Your task to perform on an android device: Search for Italian restaurants on Maps Image 0: 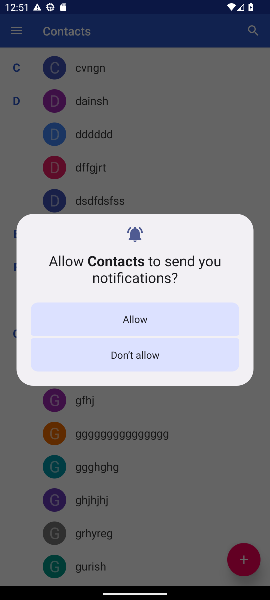
Step 0: press home button
Your task to perform on an android device: Search for Italian restaurants on Maps Image 1: 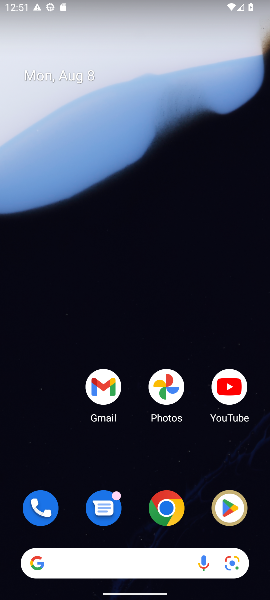
Step 1: drag from (137, 511) to (132, 5)
Your task to perform on an android device: Search for Italian restaurants on Maps Image 2: 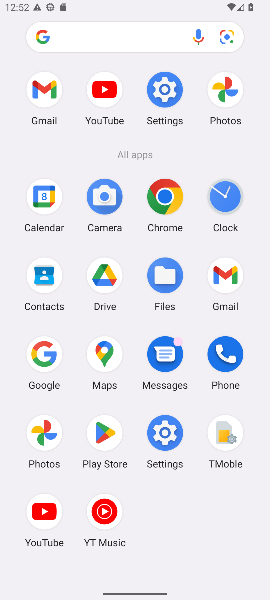
Step 2: click (107, 349)
Your task to perform on an android device: Search for Italian restaurants on Maps Image 3: 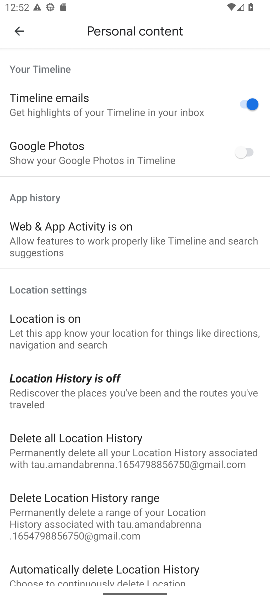
Step 3: click (15, 31)
Your task to perform on an android device: Search for Italian restaurants on Maps Image 4: 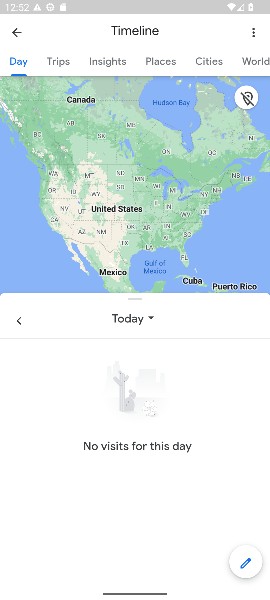
Step 4: click (16, 28)
Your task to perform on an android device: Search for Italian restaurants on Maps Image 5: 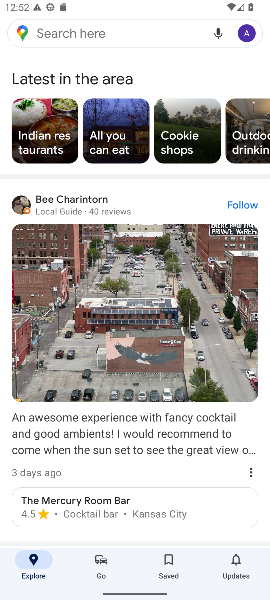
Step 5: click (106, 33)
Your task to perform on an android device: Search for Italian restaurants on Maps Image 6: 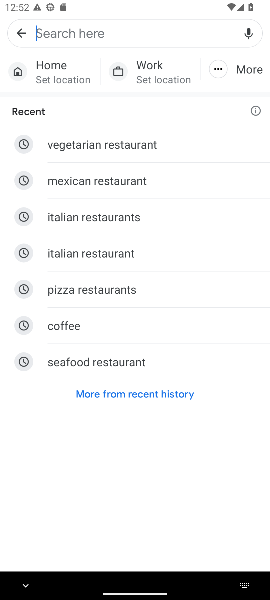
Step 6: click (73, 251)
Your task to perform on an android device: Search for Italian restaurants on Maps Image 7: 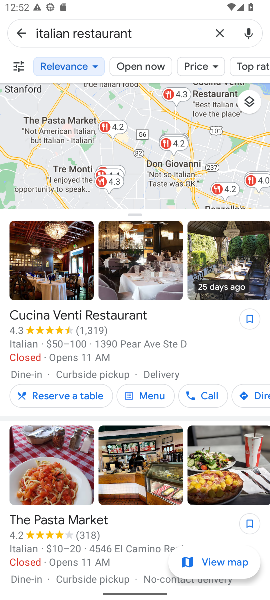
Step 7: task complete